Your task to perform on an android device: check out phone information Image 0: 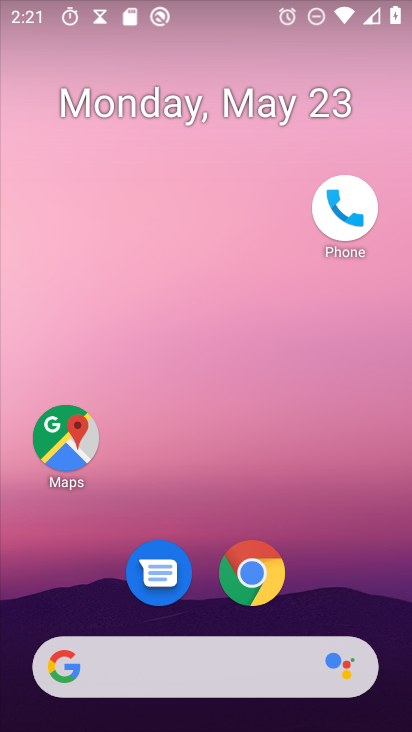
Step 0: press home button
Your task to perform on an android device: check out phone information Image 1: 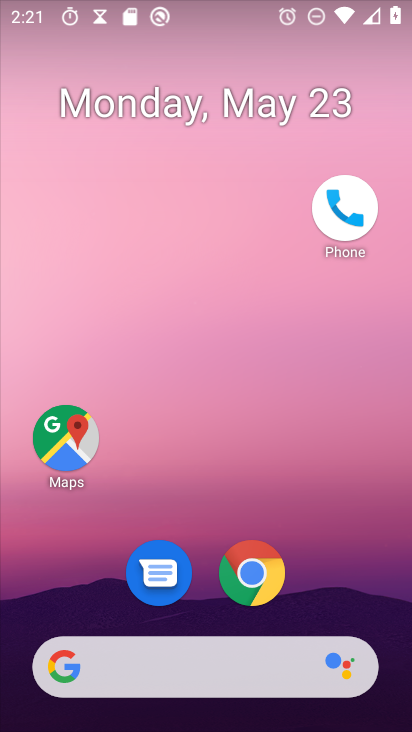
Step 1: drag from (187, 679) to (351, 111)
Your task to perform on an android device: check out phone information Image 2: 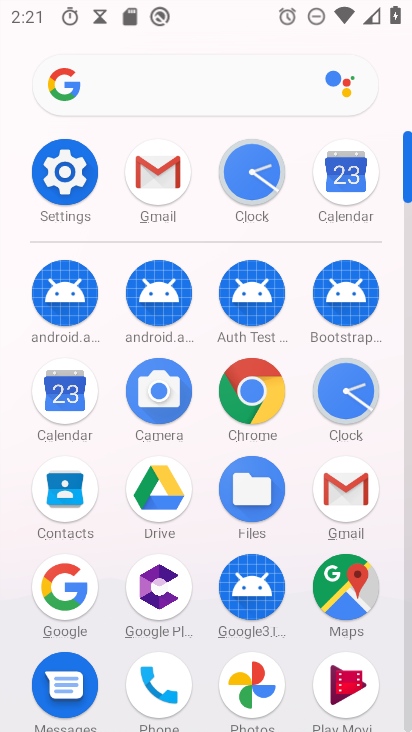
Step 2: click (70, 170)
Your task to perform on an android device: check out phone information Image 3: 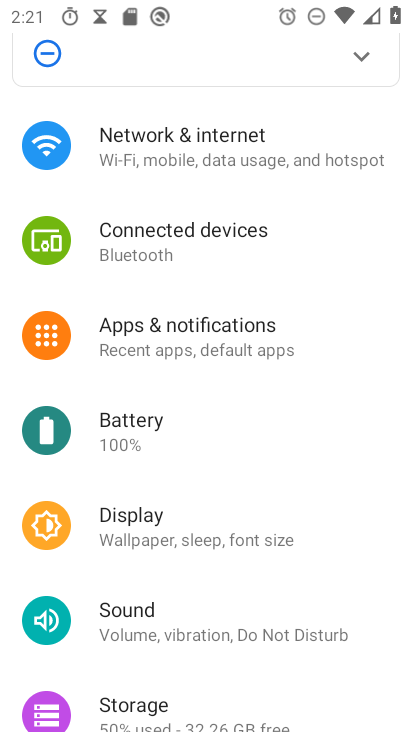
Step 3: drag from (231, 674) to (408, 243)
Your task to perform on an android device: check out phone information Image 4: 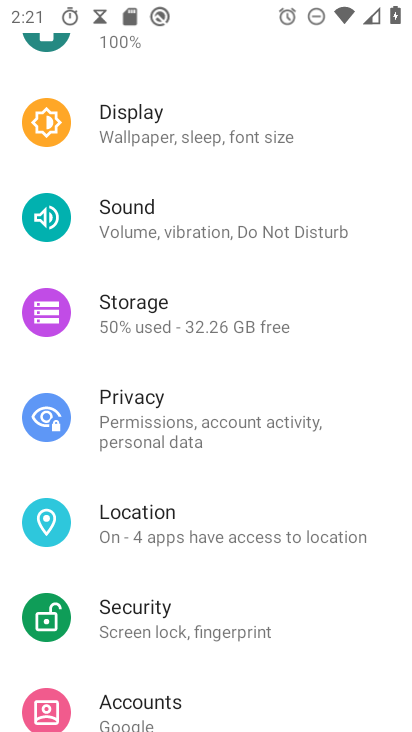
Step 4: drag from (195, 675) to (377, 171)
Your task to perform on an android device: check out phone information Image 5: 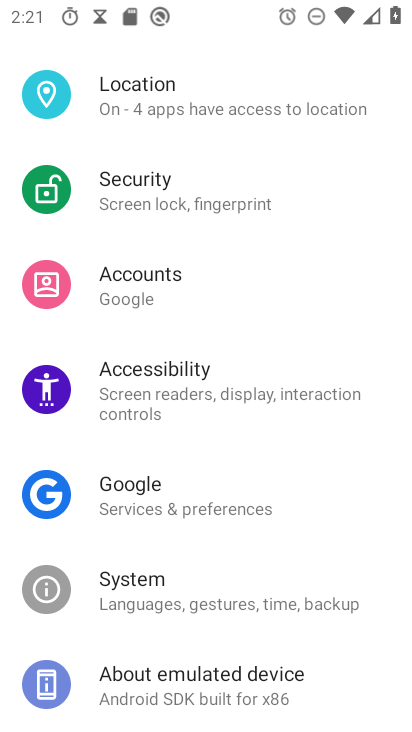
Step 5: click (221, 690)
Your task to perform on an android device: check out phone information Image 6: 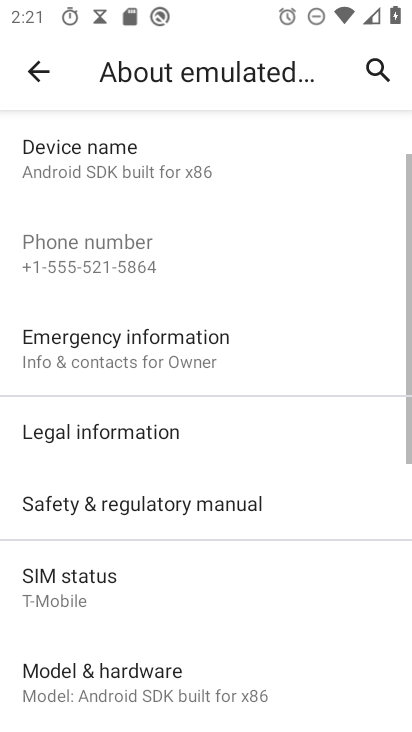
Step 6: task complete